Your task to perform on an android device: Go to sound settings Image 0: 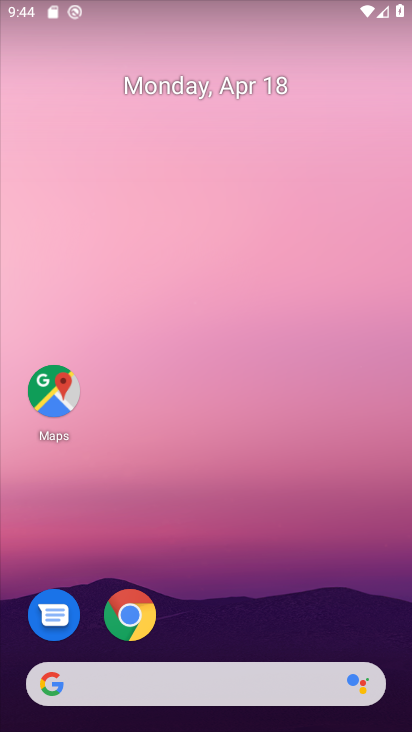
Step 0: drag from (378, 623) to (375, 43)
Your task to perform on an android device: Go to sound settings Image 1: 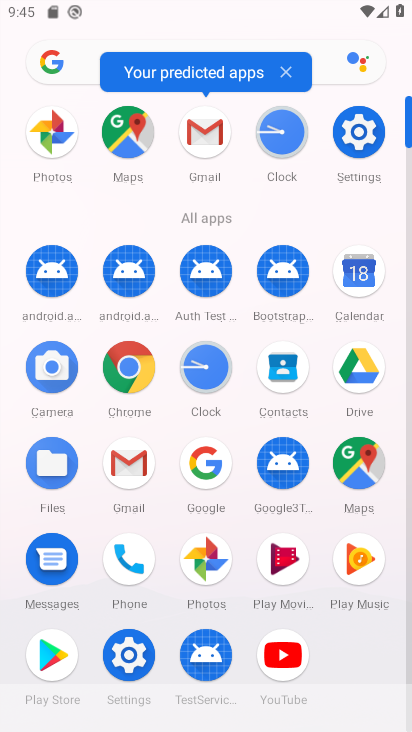
Step 1: click (365, 139)
Your task to perform on an android device: Go to sound settings Image 2: 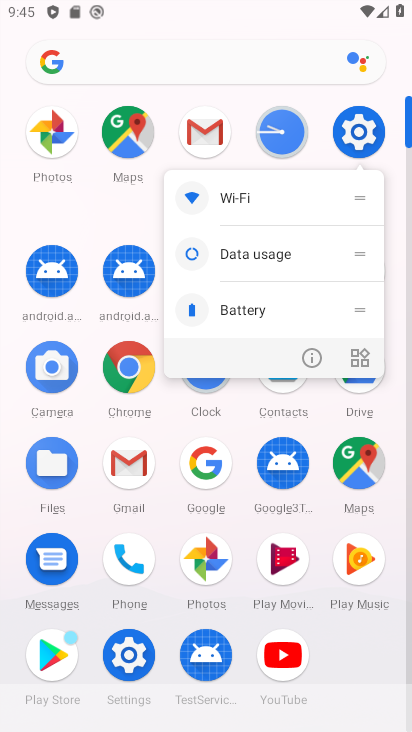
Step 2: click (363, 134)
Your task to perform on an android device: Go to sound settings Image 3: 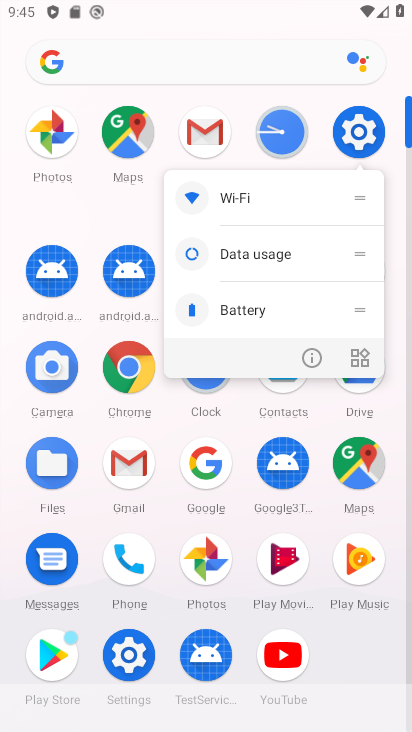
Step 3: click (363, 134)
Your task to perform on an android device: Go to sound settings Image 4: 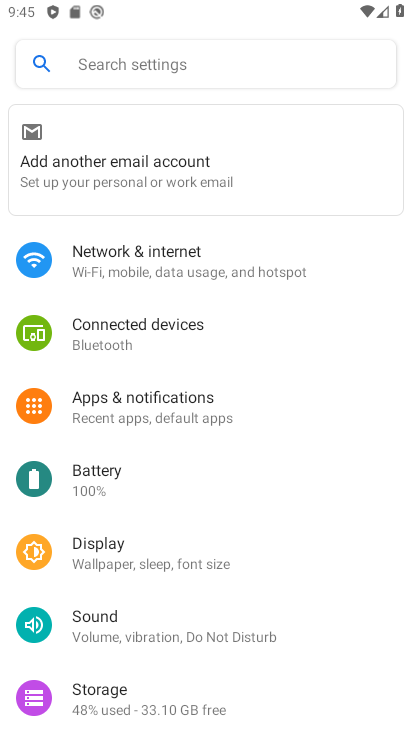
Step 4: click (87, 622)
Your task to perform on an android device: Go to sound settings Image 5: 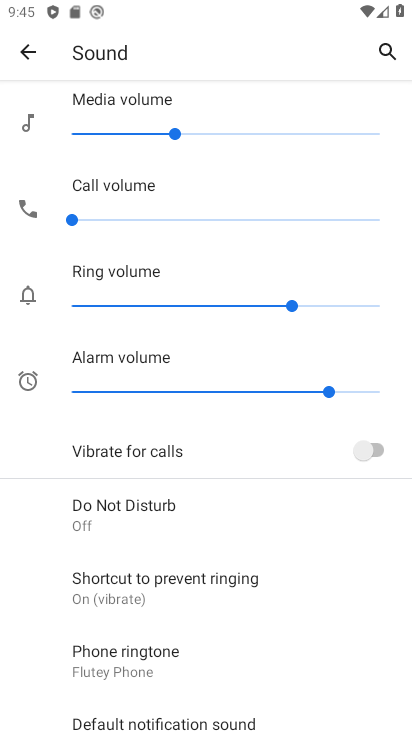
Step 5: task complete